Your task to perform on an android device: turn off picture-in-picture Image 0: 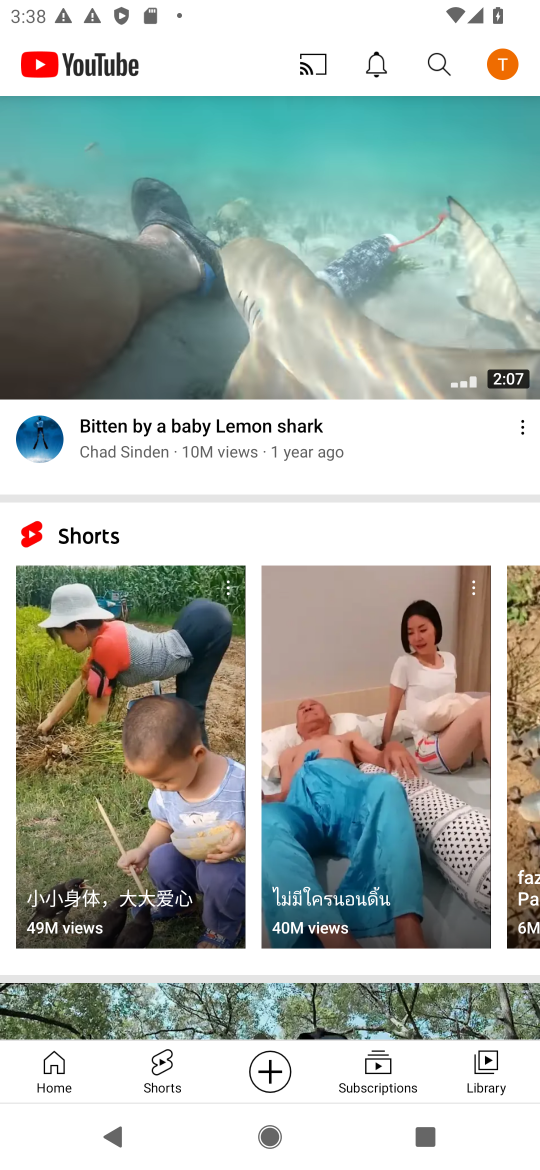
Step 0: press home button
Your task to perform on an android device: turn off picture-in-picture Image 1: 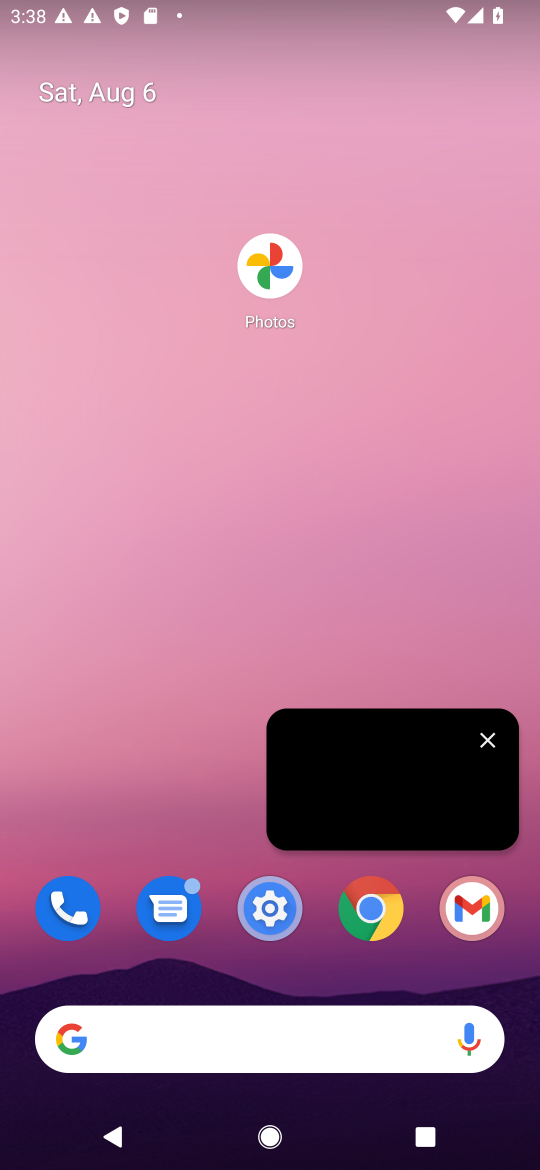
Step 1: click (491, 739)
Your task to perform on an android device: turn off picture-in-picture Image 2: 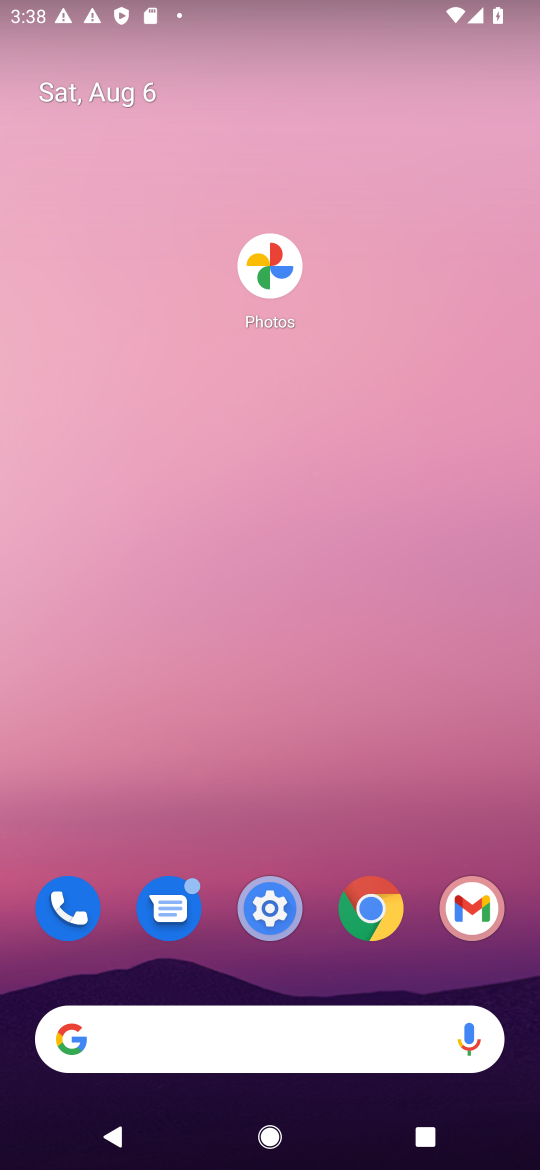
Step 2: click (365, 900)
Your task to perform on an android device: turn off picture-in-picture Image 3: 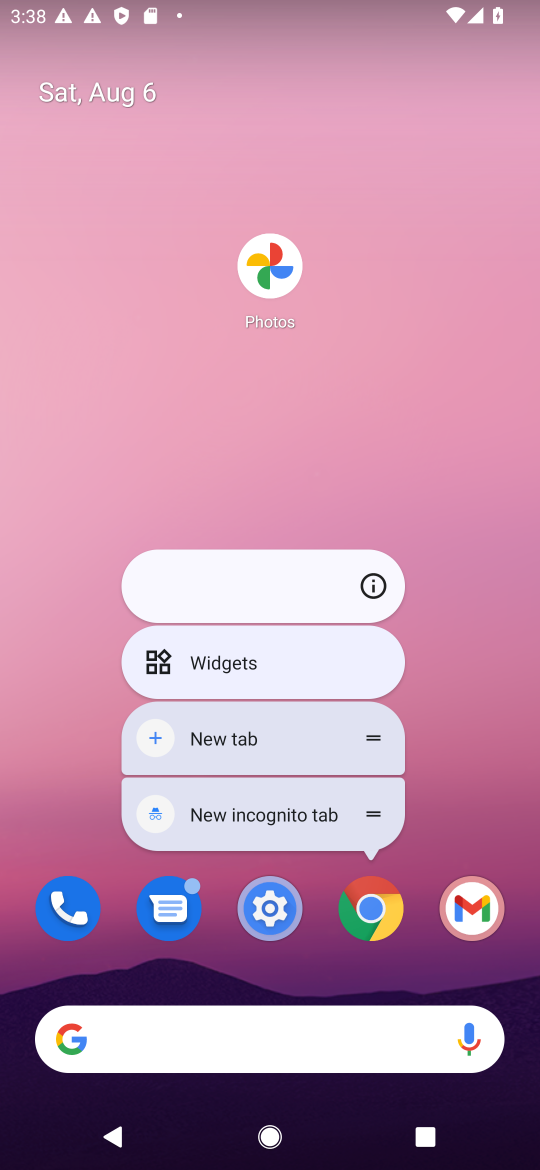
Step 3: click (368, 582)
Your task to perform on an android device: turn off picture-in-picture Image 4: 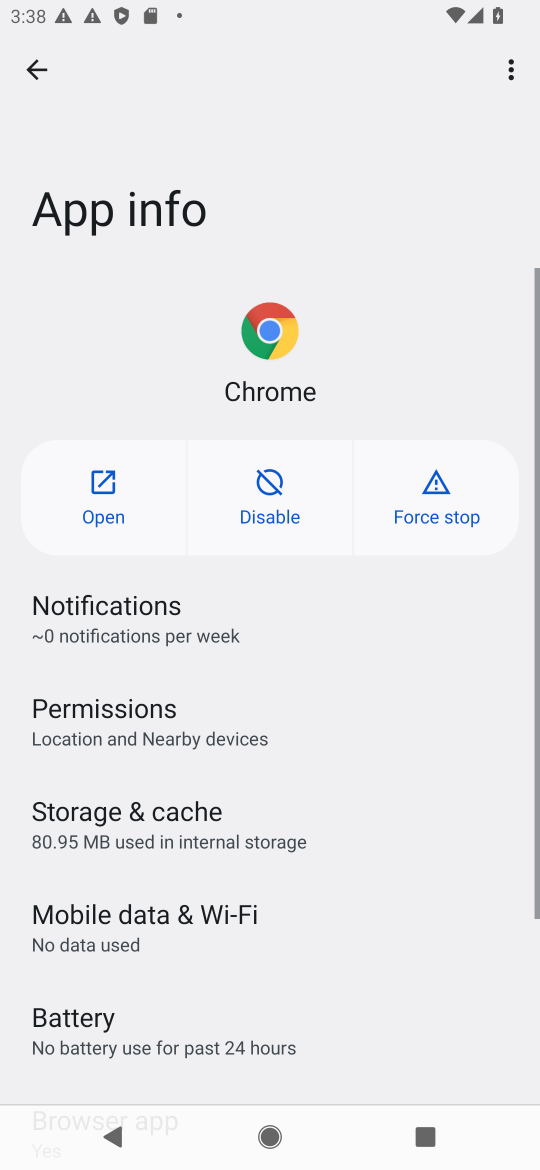
Step 4: drag from (173, 983) to (255, 522)
Your task to perform on an android device: turn off picture-in-picture Image 5: 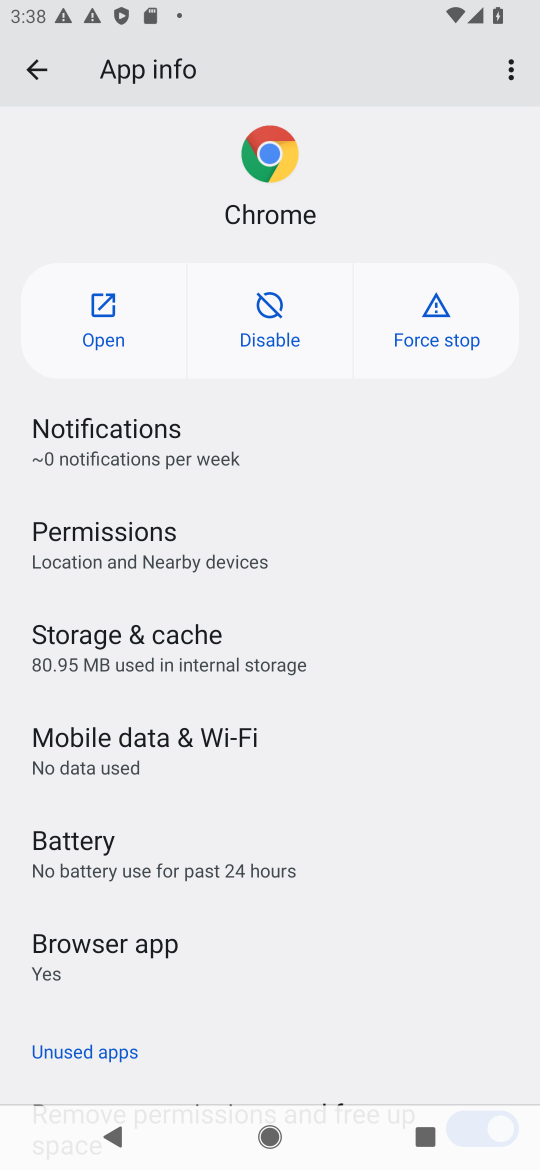
Step 5: drag from (264, 1016) to (288, 677)
Your task to perform on an android device: turn off picture-in-picture Image 6: 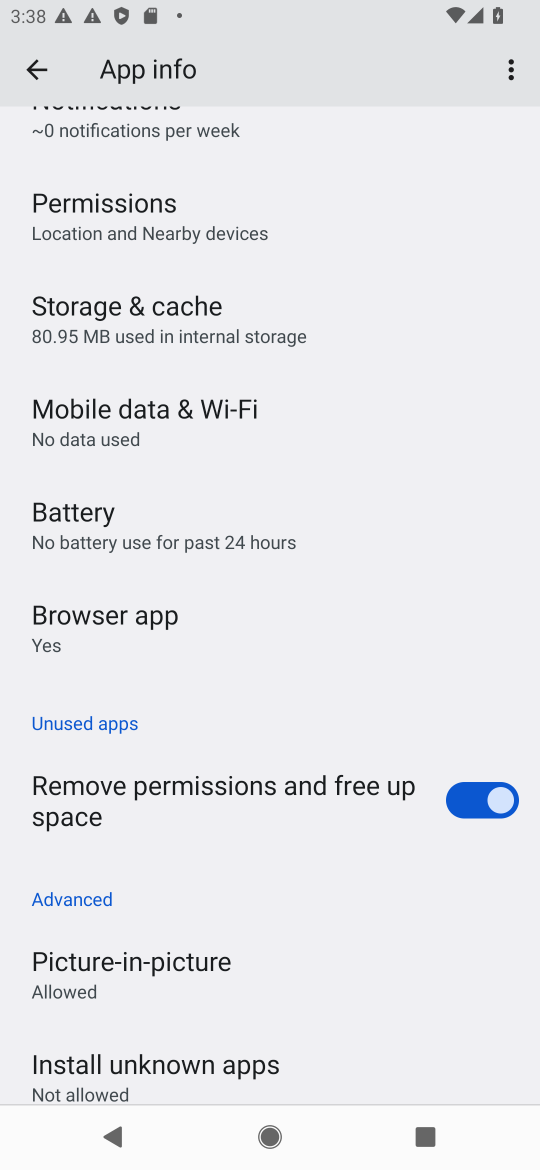
Step 6: drag from (172, 856) to (195, 670)
Your task to perform on an android device: turn off picture-in-picture Image 7: 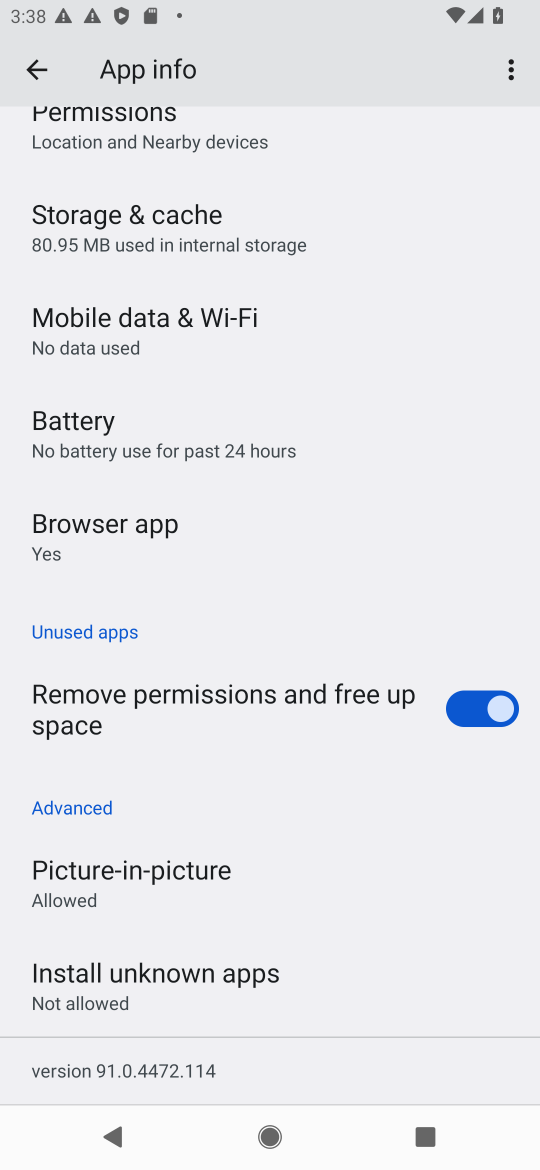
Step 7: click (113, 901)
Your task to perform on an android device: turn off picture-in-picture Image 8: 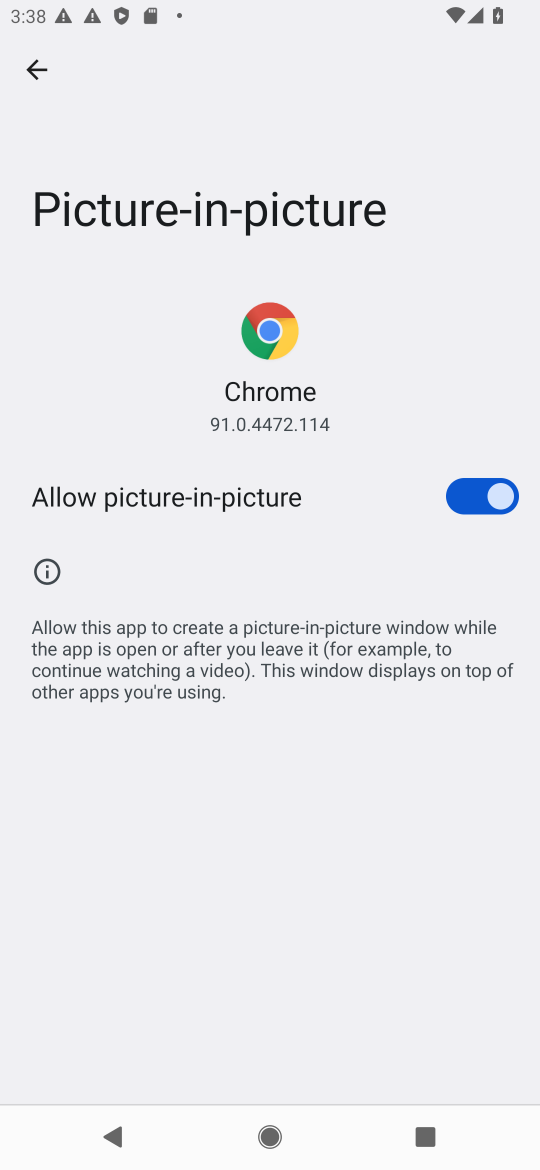
Step 8: click (442, 486)
Your task to perform on an android device: turn off picture-in-picture Image 9: 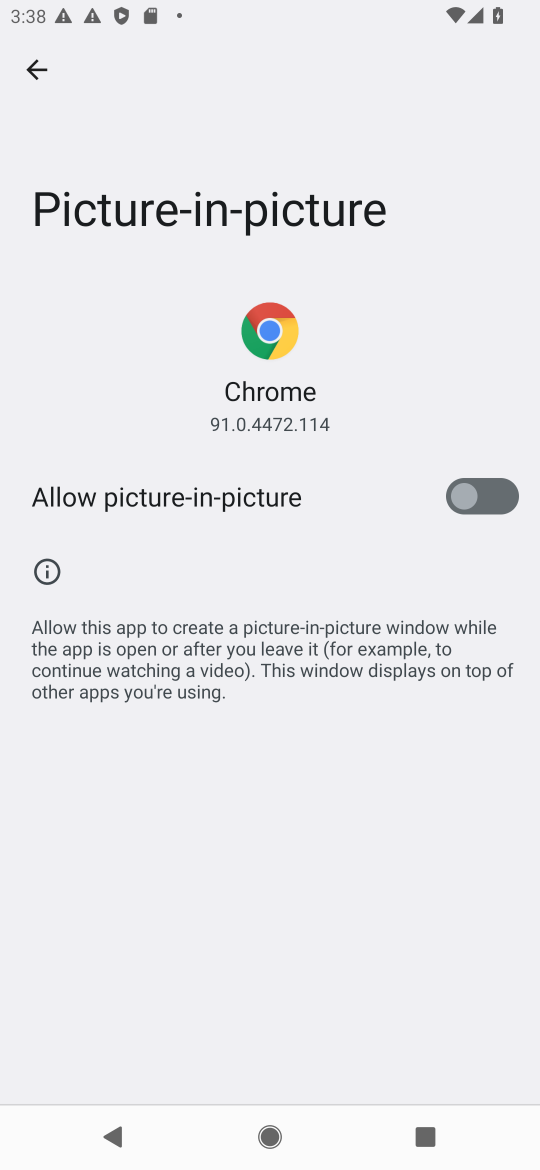
Step 9: task complete